Your task to perform on an android device: choose inbox layout in the gmail app Image 0: 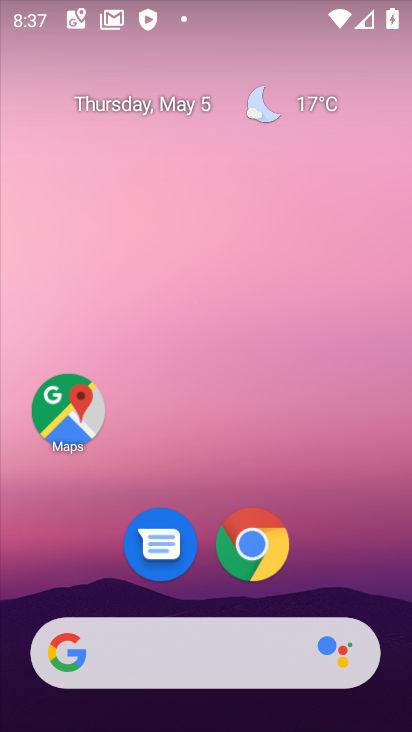
Step 0: drag from (390, 625) to (310, 146)
Your task to perform on an android device: choose inbox layout in the gmail app Image 1: 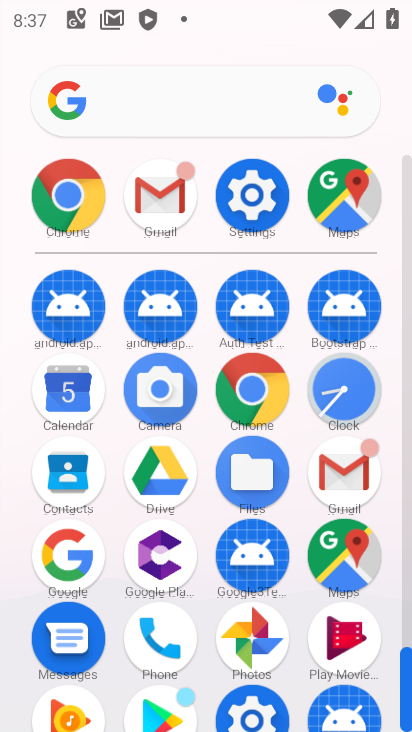
Step 1: click (352, 487)
Your task to perform on an android device: choose inbox layout in the gmail app Image 2: 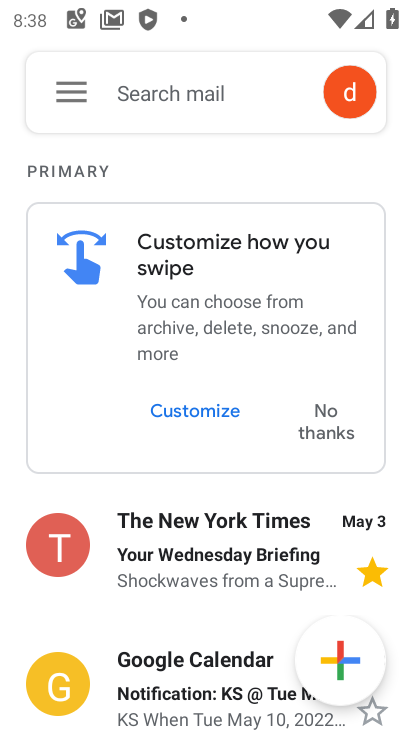
Step 2: task complete